Your task to perform on an android device: Open Google Image 0: 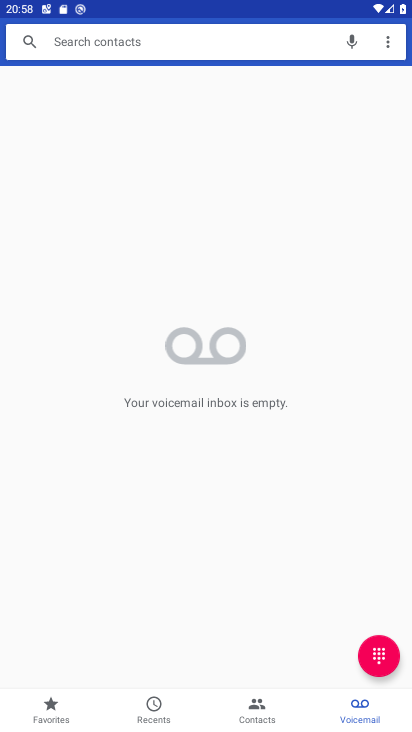
Step 0: press home button
Your task to perform on an android device: Open Google Image 1: 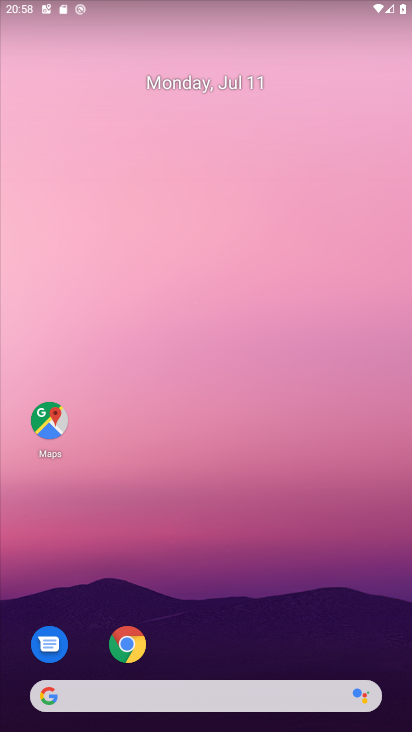
Step 1: drag from (220, 602) to (220, 79)
Your task to perform on an android device: Open Google Image 2: 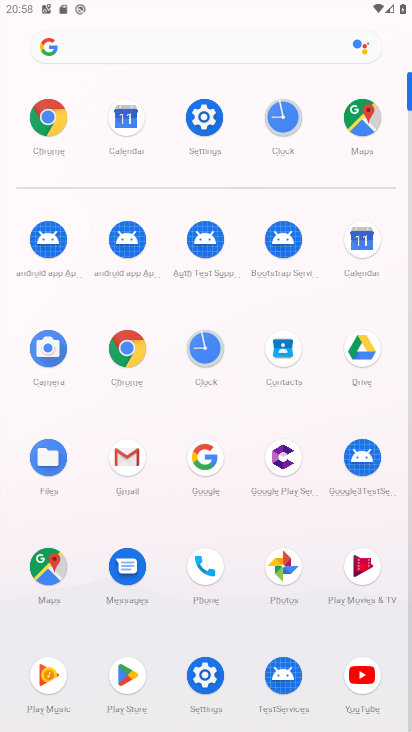
Step 2: click (200, 444)
Your task to perform on an android device: Open Google Image 3: 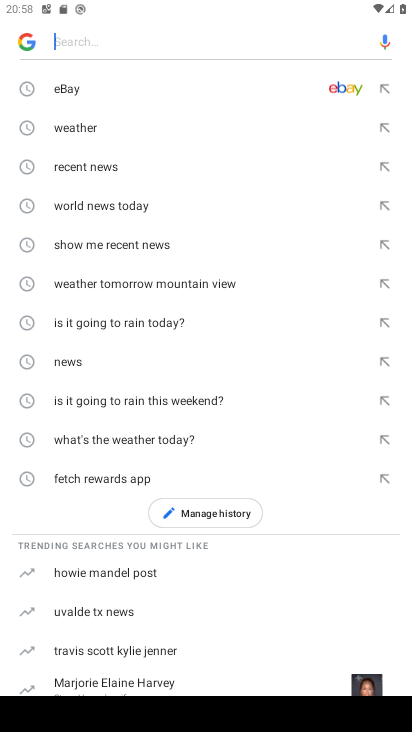
Step 3: task complete